Your task to perform on an android device: find which apps use the phone's location Image 0: 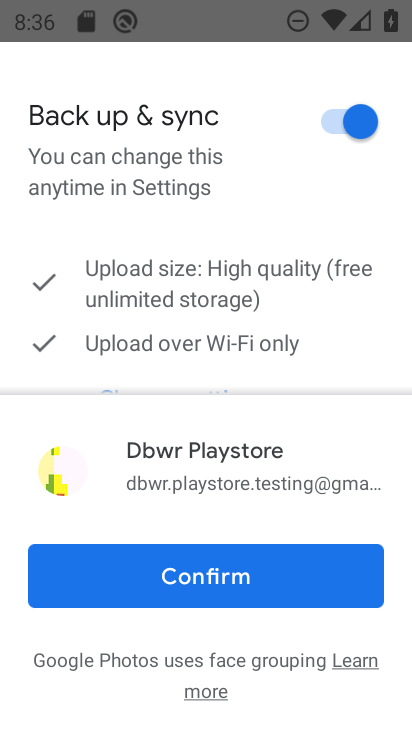
Step 0: press back button
Your task to perform on an android device: find which apps use the phone's location Image 1: 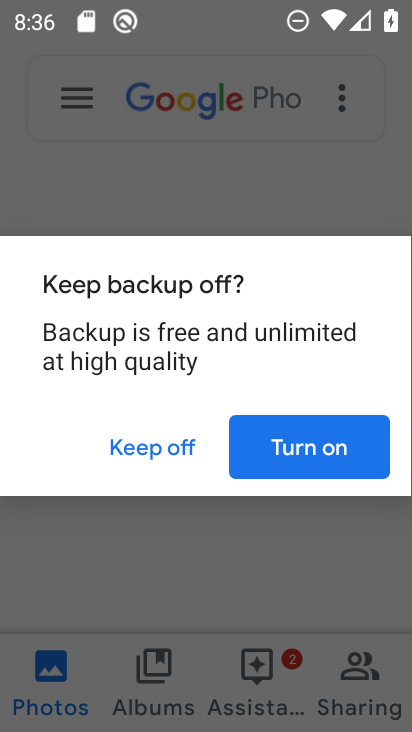
Step 1: press back button
Your task to perform on an android device: find which apps use the phone's location Image 2: 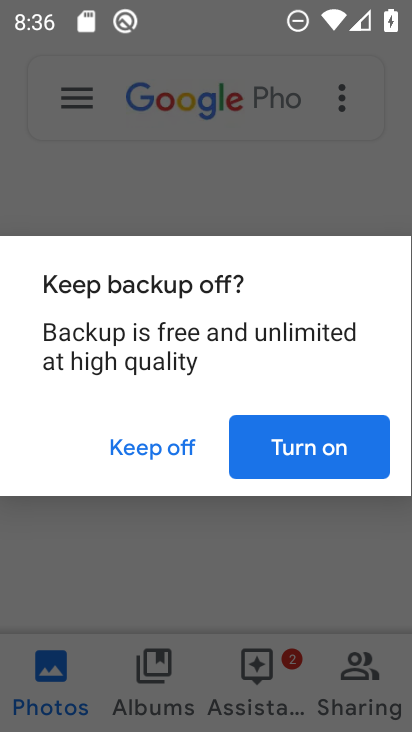
Step 2: press home button
Your task to perform on an android device: find which apps use the phone's location Image 3: 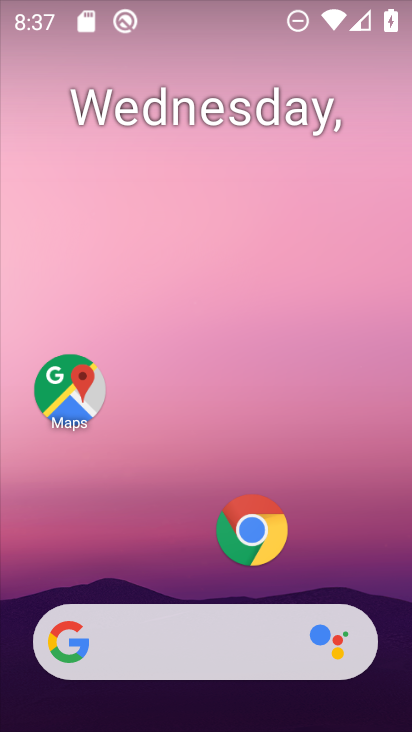
Step 3: drag from (134, 560) to (251, 124)
Your task to perform on an android device: find which apps use the phone's location Image 4: 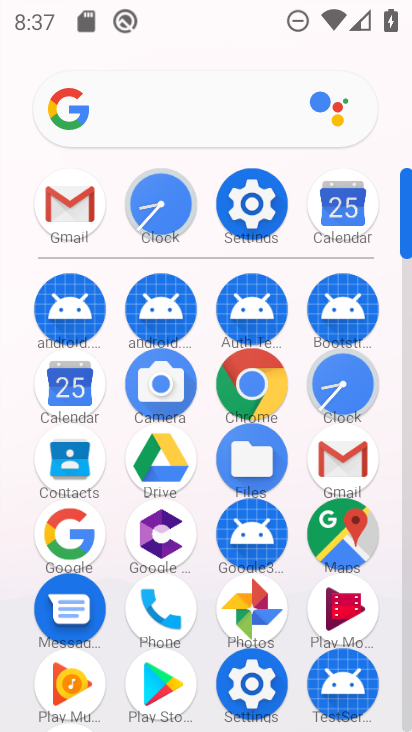
Step 4: click (246, 220)
Your task to perform on an android device: find which apps use the phone's location Image 5: 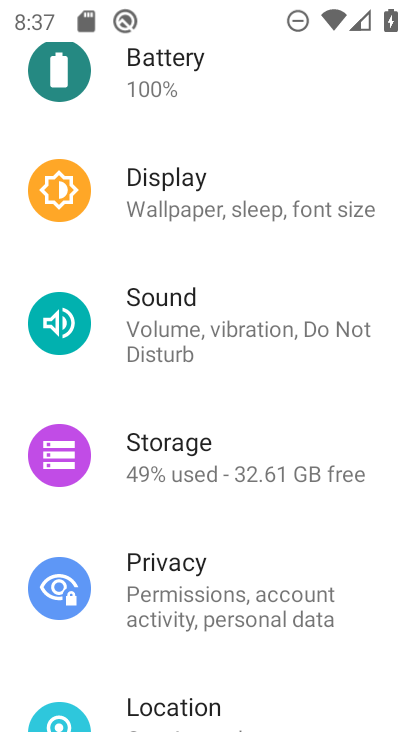
Step 5: click (169, 705)
Your task to perform on an android device: find which apps use the phone's location Image 6: 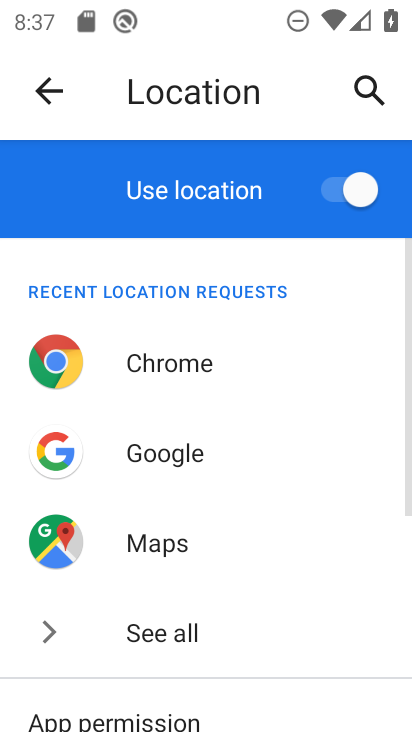
Step 6: drag from (144, 708) to (284, 193)
Your task to perform on an android device: find which apps use the phone's location Image 7: 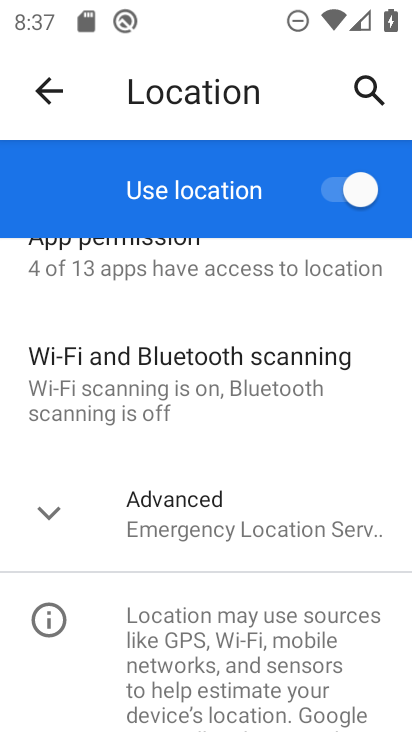
Step 7: drag from (163, 324) to (163, 546)
Your task to perform on an android device: find which apps use the phone's location Image 8: 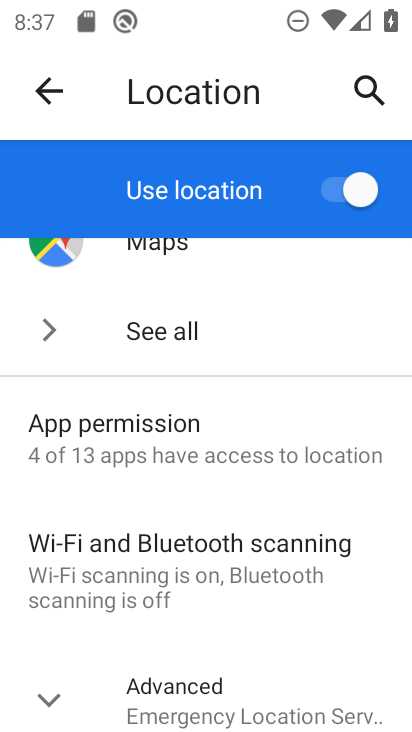
Step 8: click (108, 422)
Your task to perform on an android device: find which apps use the phone's location Image 9: 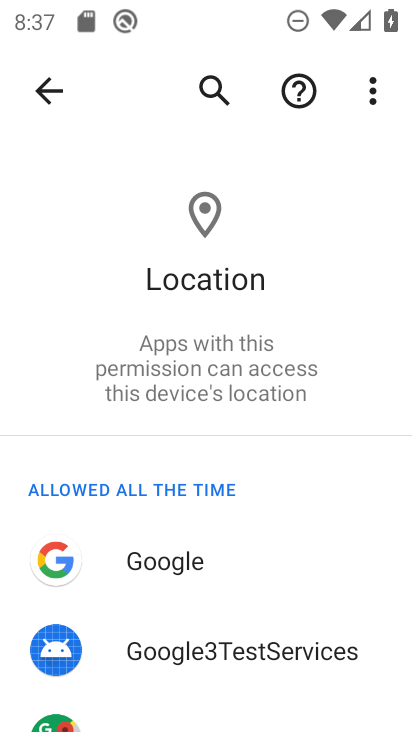
Step 9: task complete